Your task to perform on an android device: Open the map Image 0: 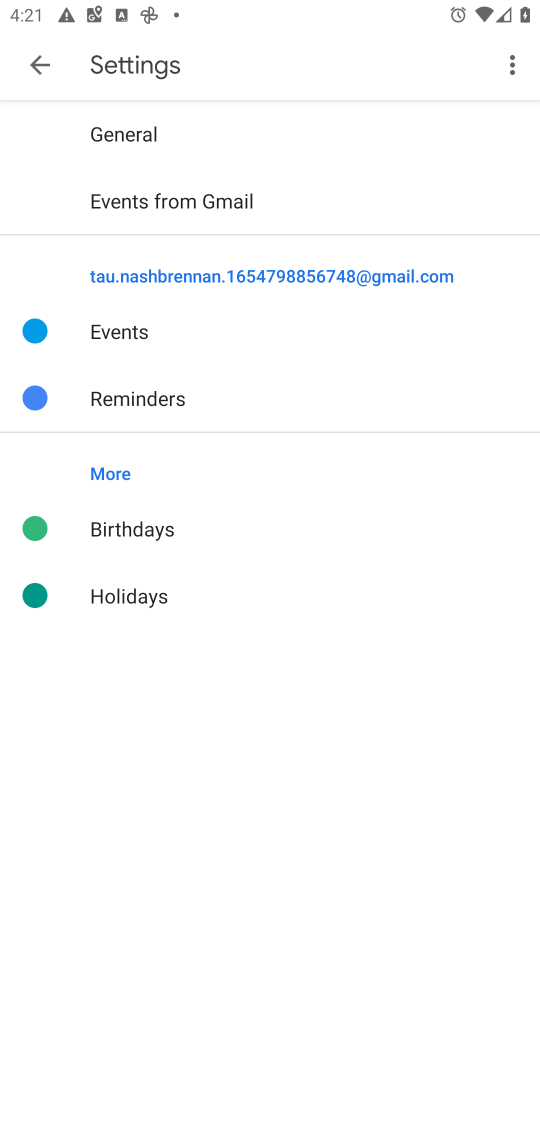
Step 0: press home button
Your task to perform on an android device: Open the map Image 1: 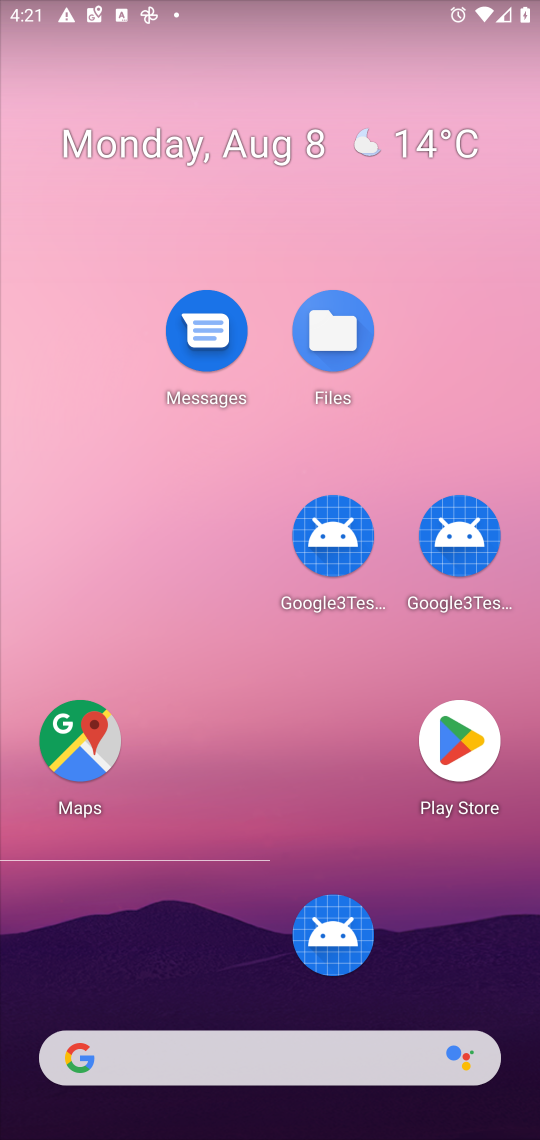
Step 1: drag from (213, 1071) to (378, 120)
Your task to perform on an android device: Open the map Image 2: 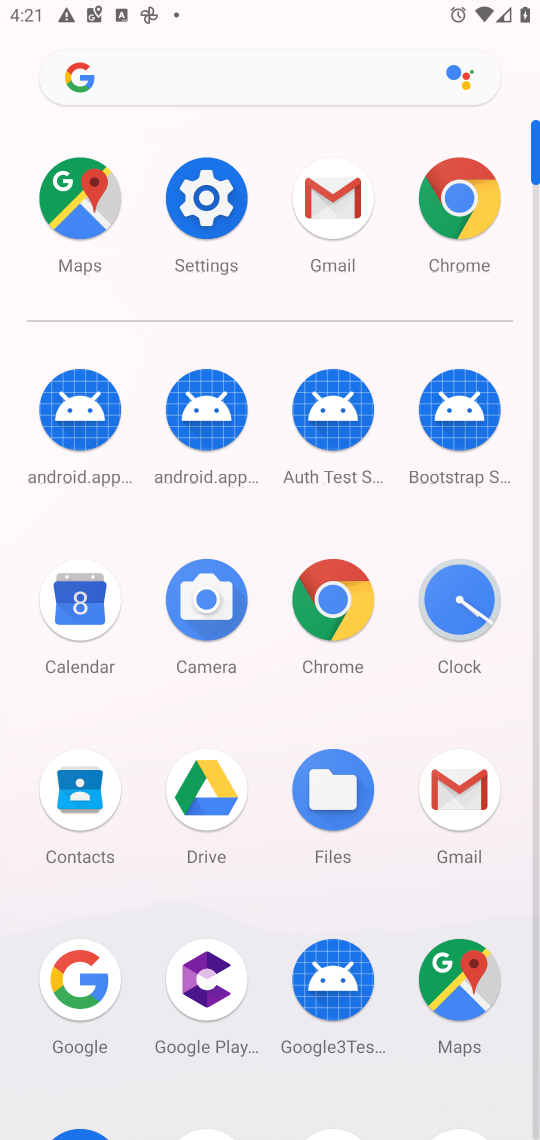
Step 2: click (456, 1016)
Your task to perform on an android device: Open the map Image 3: 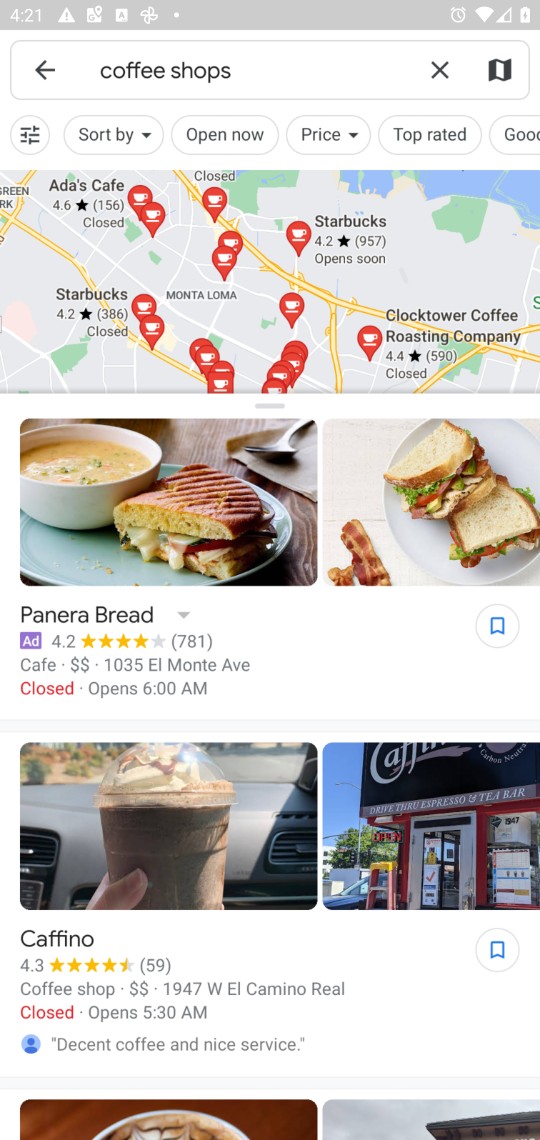
Step 3: task complete